Your task to perform on an android device: Play the latest video from the Huffington Post Image 0: 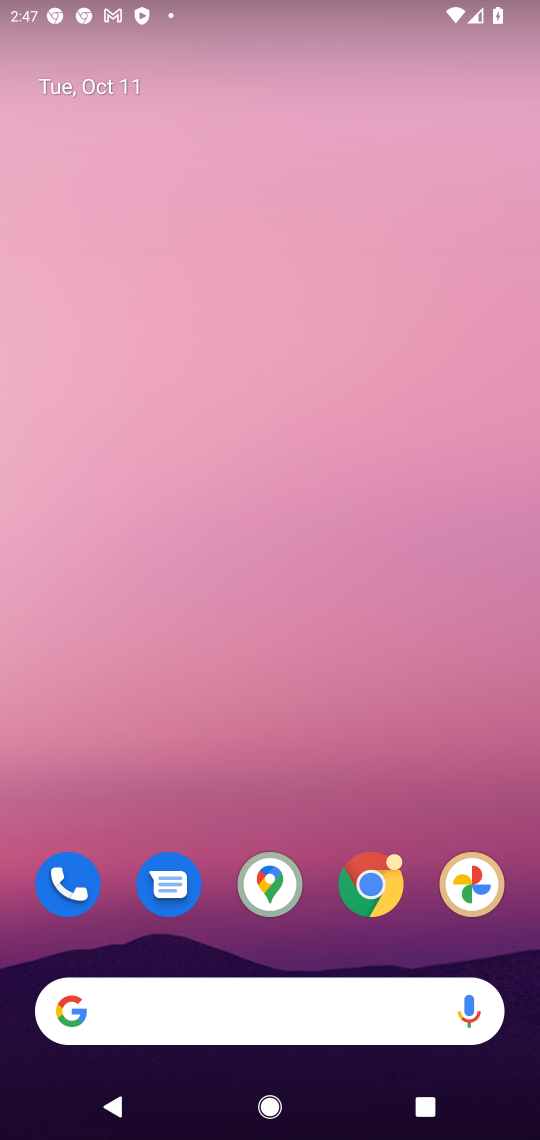
Step 0: drag from (283, 1002) to (465, 268)
Your task to perform on an android device: Play the latest video from the Huffington Post Image 1: 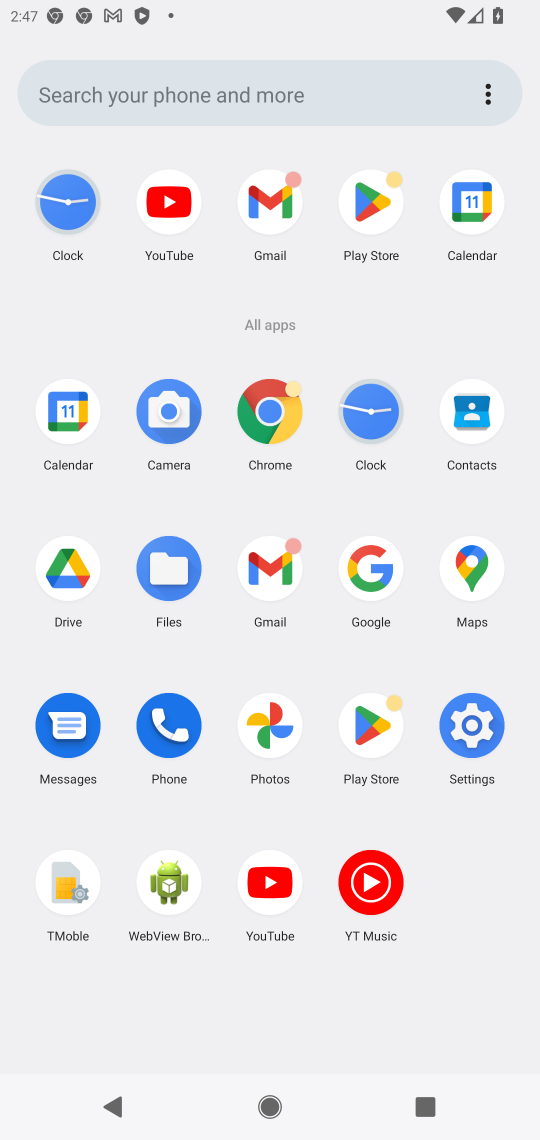
Step 1: click (265, 893)
Your task to perform on an android device: Play the latest video from the Huffington Post Image 2: 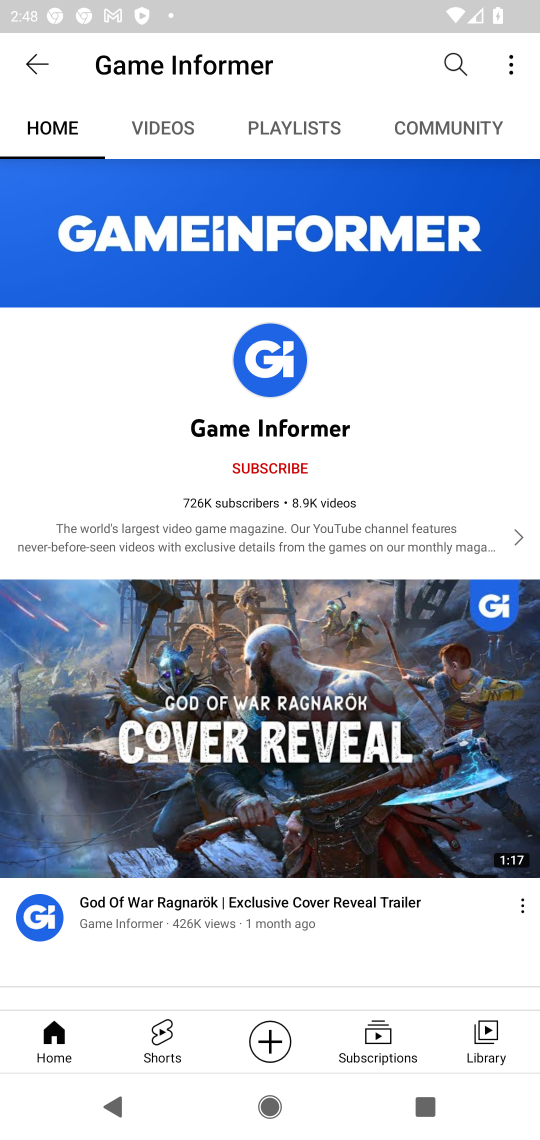
Step 2: click (460, 68)
Your task to perform on an android device: Play the latest video from the Huffington Post Image 3: 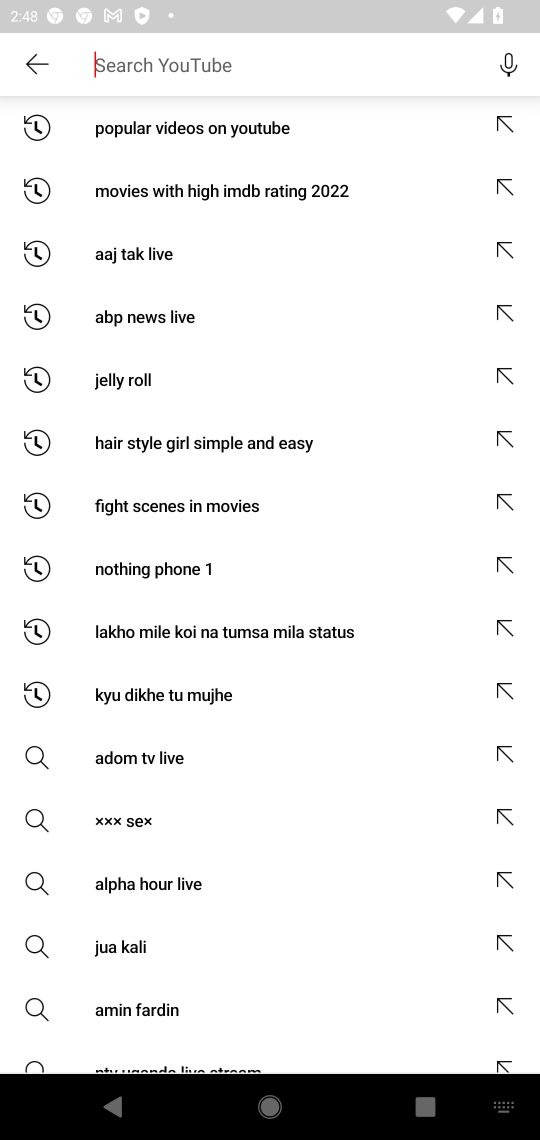
Step 3: type "latest video from the Huffington Post"
Your task to perform on an android device: Play the latest video from the Huffington Post Image 4: 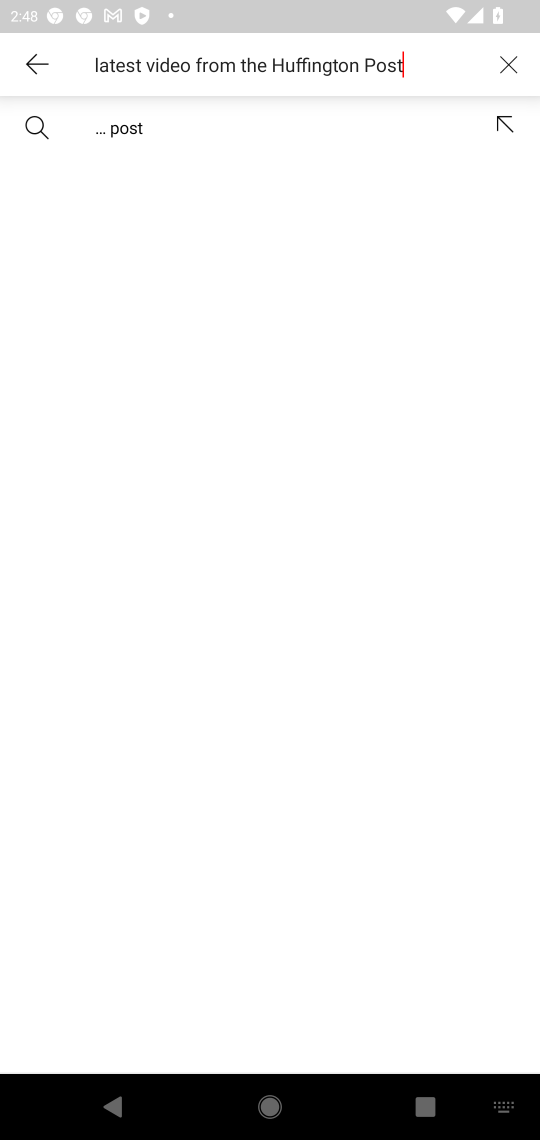
Step 4: click (123, 134)
Your task to perform on an android device: Play the latest video from the Huffington Post Image 5: 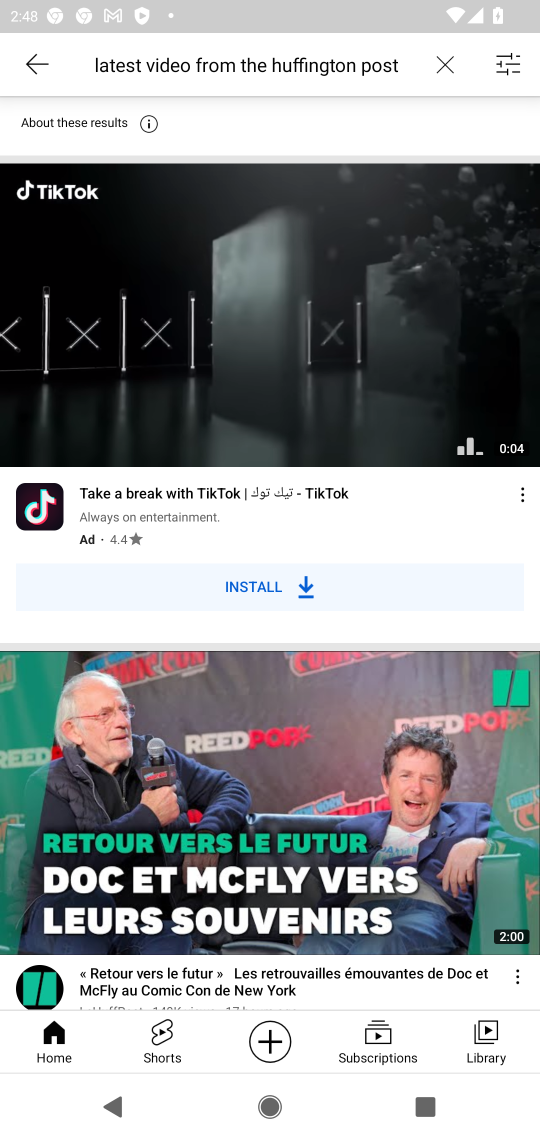
Step 5: drag from (263, 790) to (404, 540)
Your task to perform on an android device: Play the latest video from the Huffington Post Image 6: 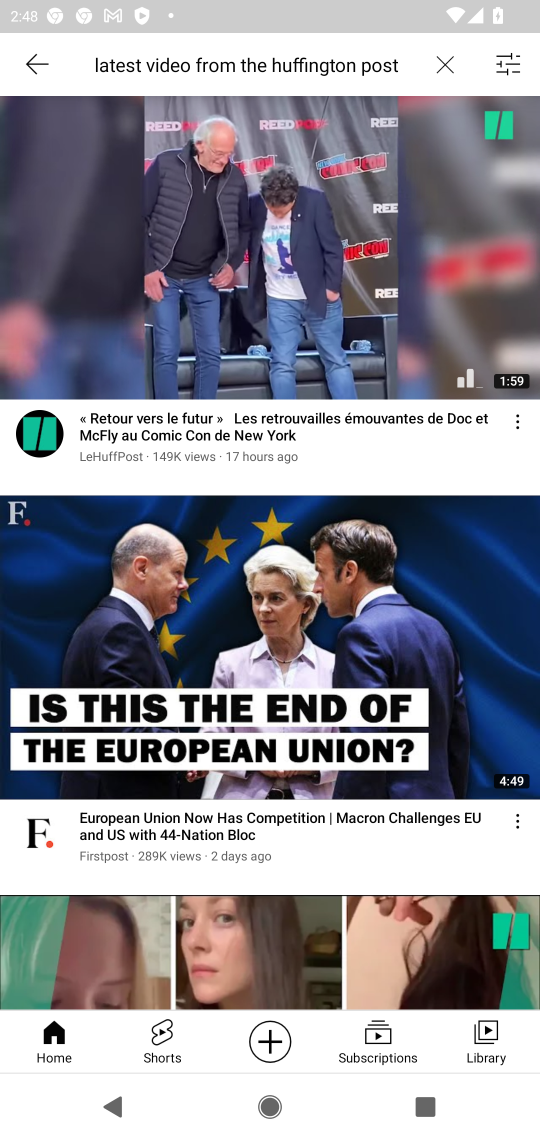
Step 6: drag from (254, 904) to (359, 704)
Your task to perform on an android device: Play the latest video from the Huffington Post Image 7: 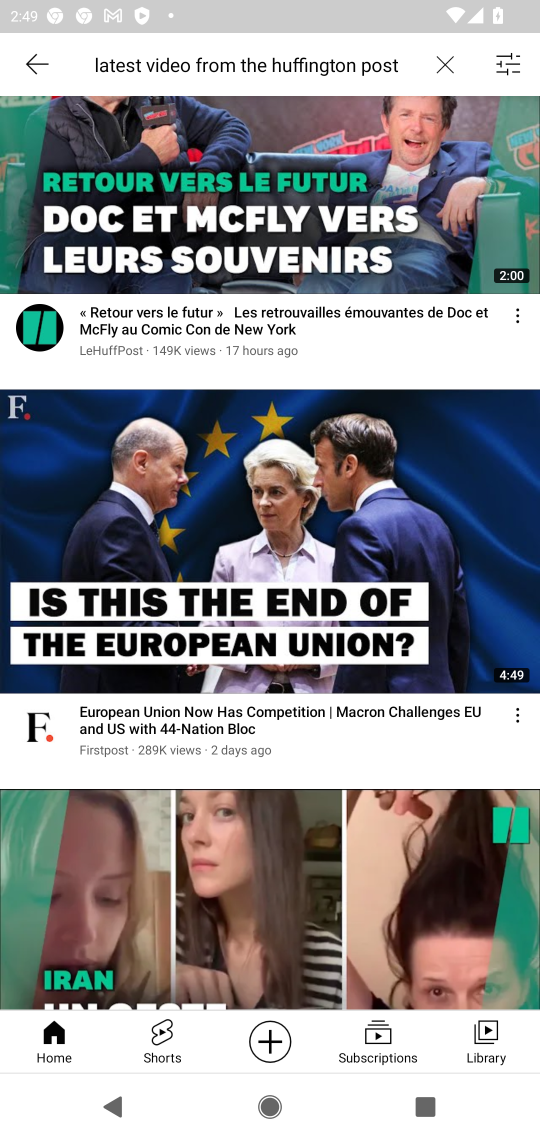
Step 7: drag from (174, 941) to (247, 521)
Your task to perform on an android device: Play the latest video from the Huffington Post Image 8: 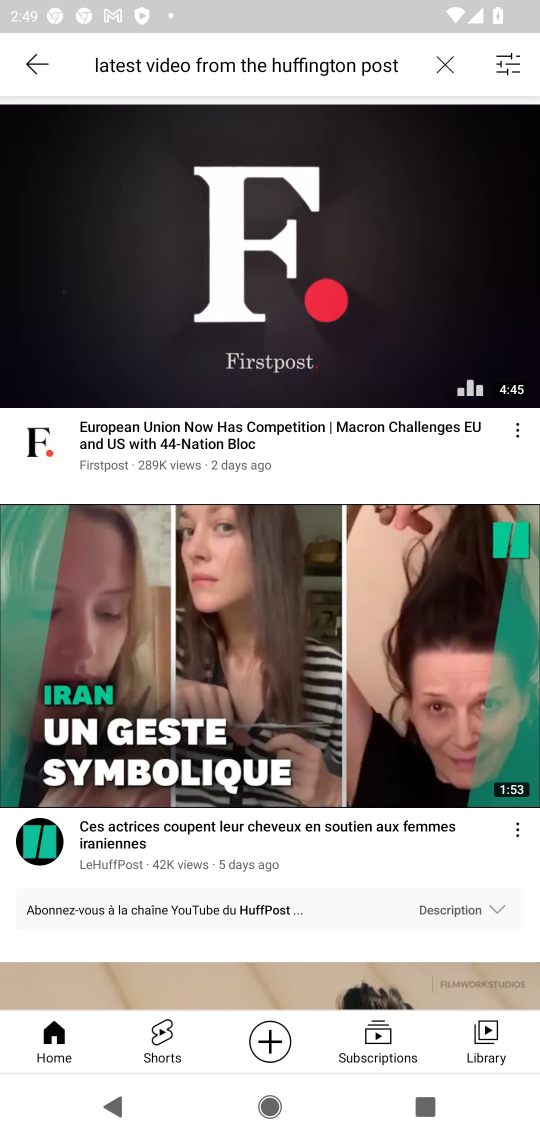
Step 8: drag from (202, 917) to (278, 708)
Your task to perform on an android device: Play the latest video from the Huffington Post Image 9: 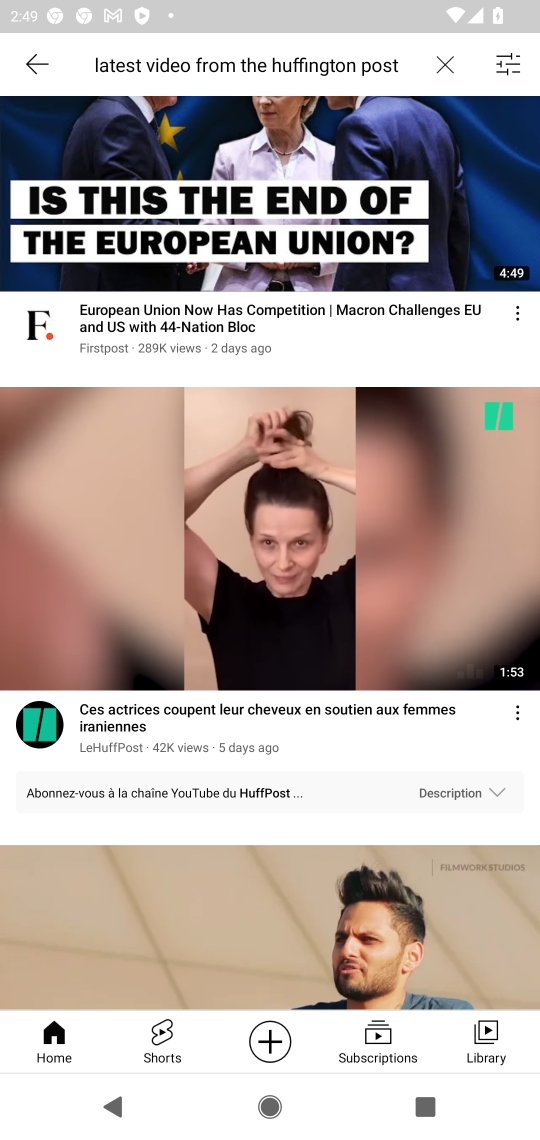
Step 9: drag from (197, 942) to (236, 731)
Your task to perform on an android device: Play the latest video from the Huffington Post Image 10: 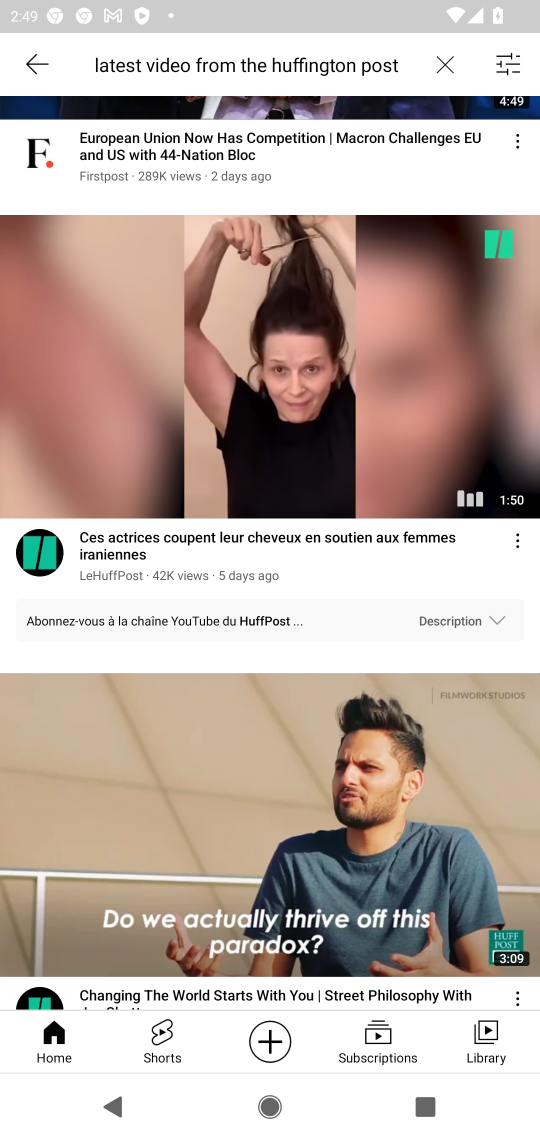
Step 10: drag from (179, 855) to (211, 702)
Your task to perform on an android device: Play the latest video from the Huffington Post Image 11: 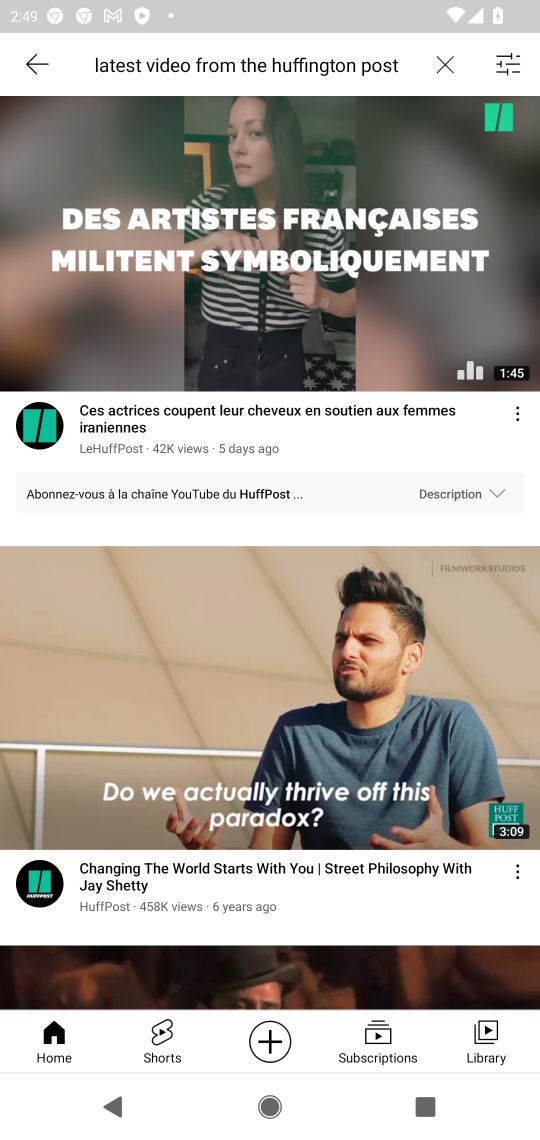
Step 11: click (260, 329)
Your task to perform on an android device: Play the latest video from the Huffington Post Image 12: 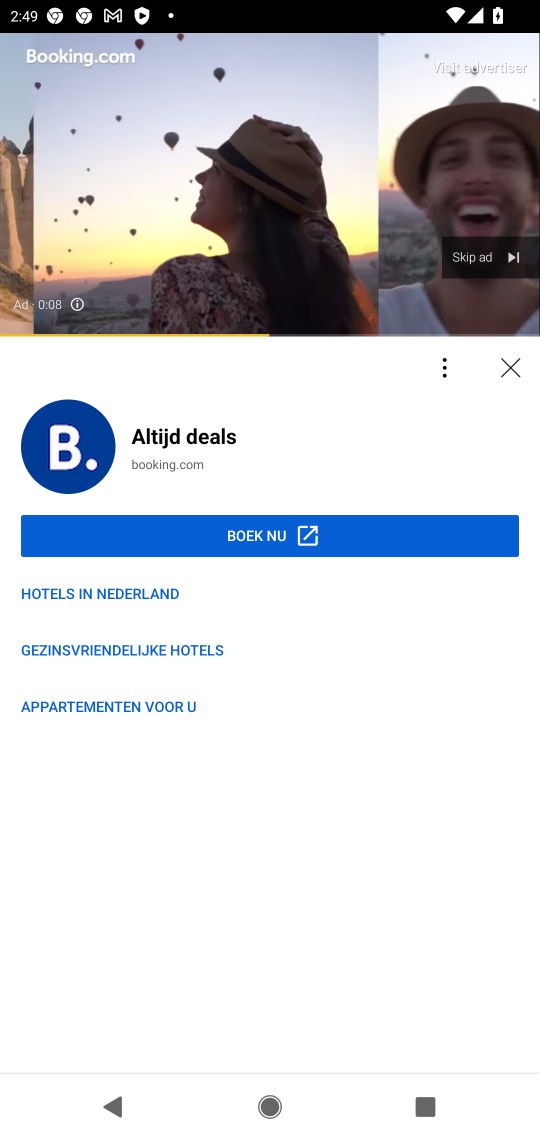
Step 12: click (481, 257)
Your task to perform on an android device: Play the latest video from the Huffington Post Image 13: 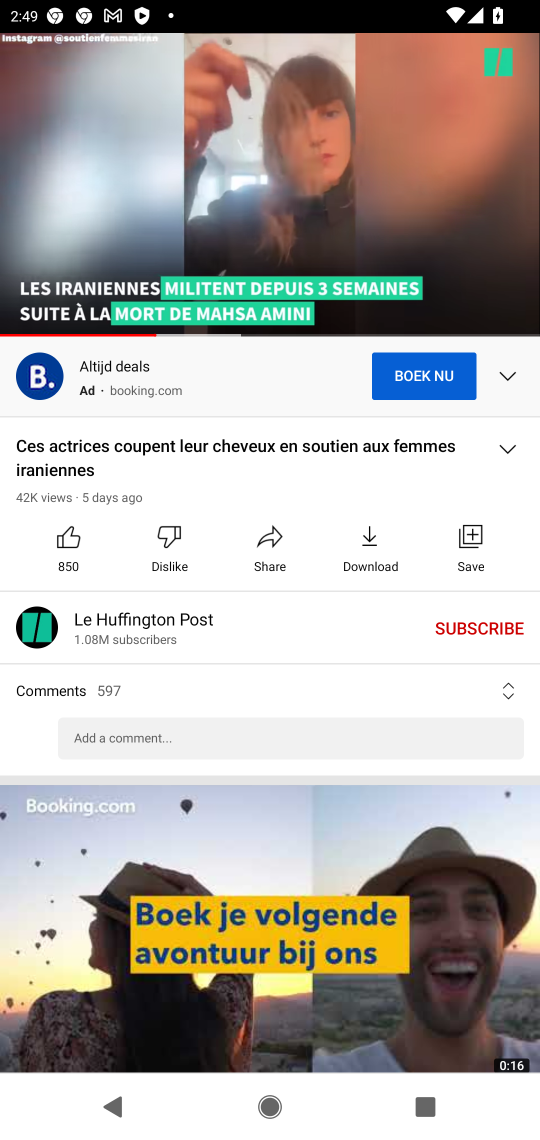
Step 13: task complete